Your task to perform on an android device: Go to Yahoo.com Image 0: 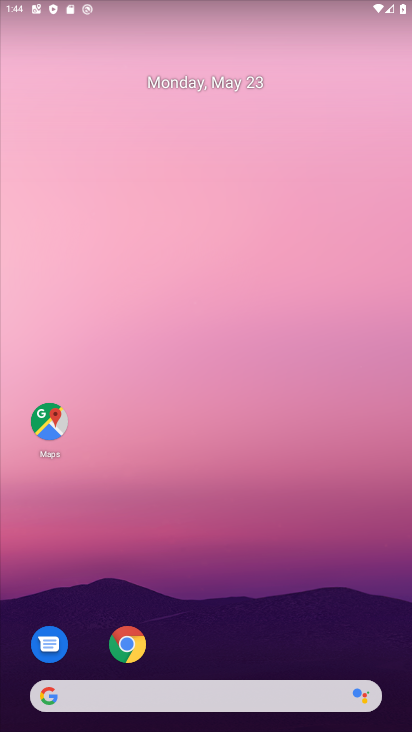
Step 0: drag from (284, 560) to (258, 30)
Your task to perform on an android device: Go to Yahoo.com Image 1: 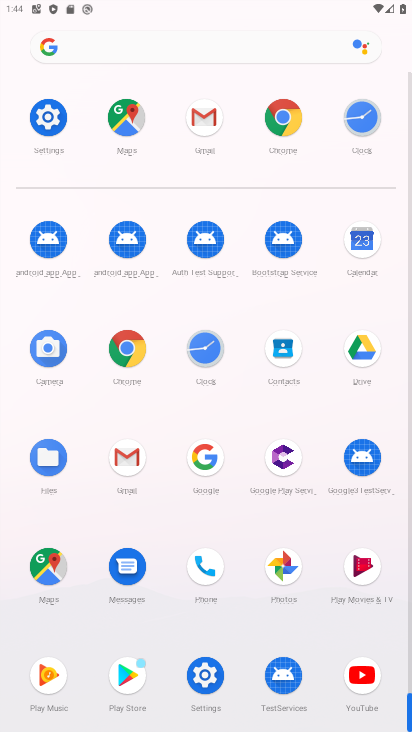
Step 1: click (126, 343)
Your task to perform on an android device: Go to Yahoo.com Image 2: 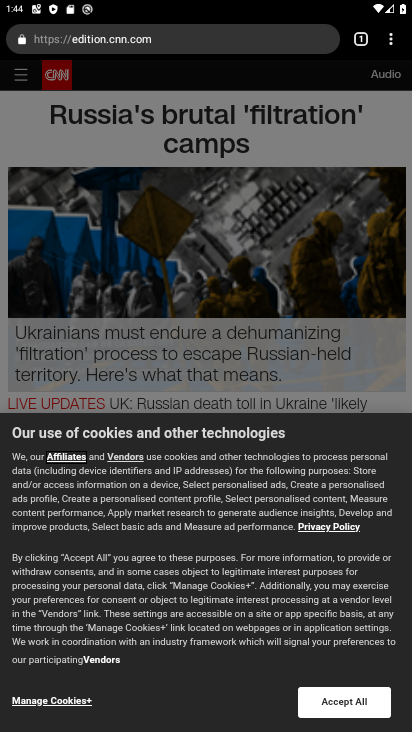
Step 2: click (190, 37)
Your task to perform on an android device: Go to Yahoo.com Image 3: 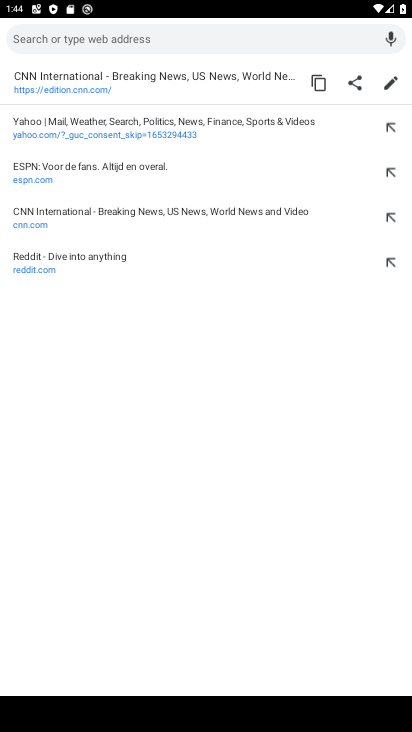
Step 3: click (119, 127)
Your task to perform on an android device: Go to Yahoo.com Image 4: 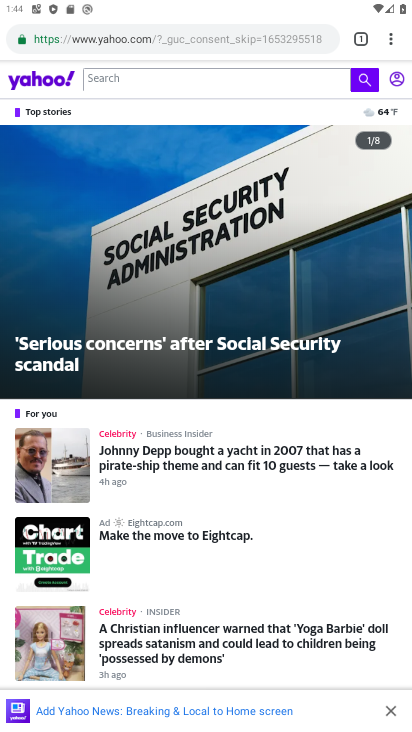
Step 4: task complete